Your task to perform on an android device: turn on location history Image 0: 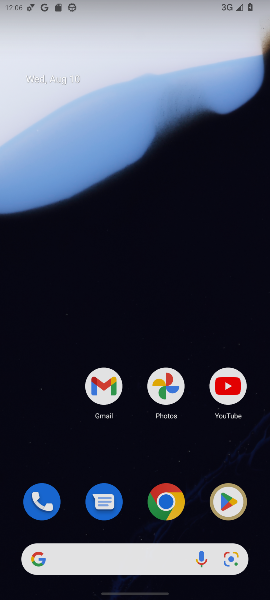
Step 0: press home button
Your task to perform on an android device: turn on location history Image 1: 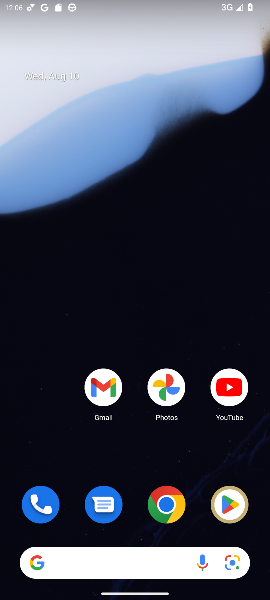
Step 1: drag from (138, 525) to (187, 135)
Your task to perform on an android device: turn on location history Image 2: 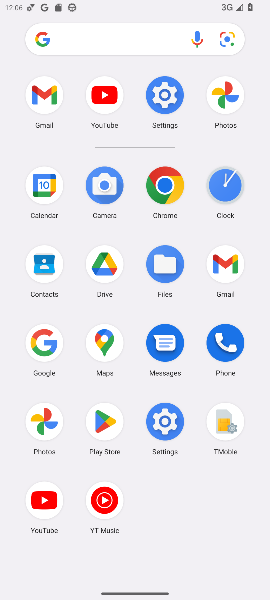
Step 2: click (164, 95)
Your task to perform on an android device: turn on location history Image 3: 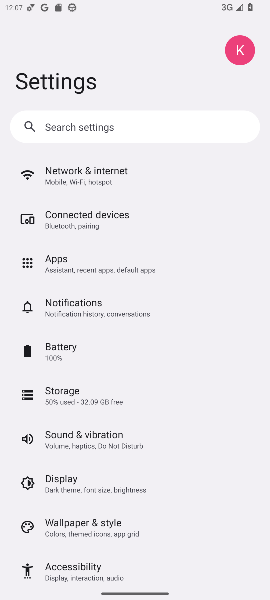
Step 3: drag from (181, 526) to (170, 132)
Your task to perform on an android device: turn on location history Image 4: 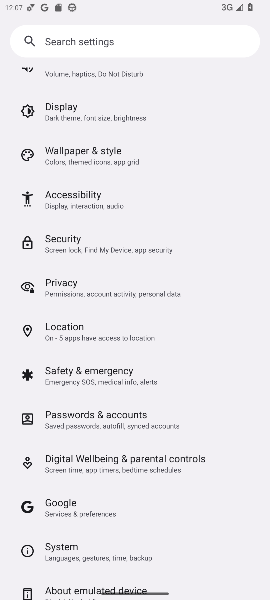
Step 4: click (63, 324)
Your task to perform on an android device: turn on location history Image 5: 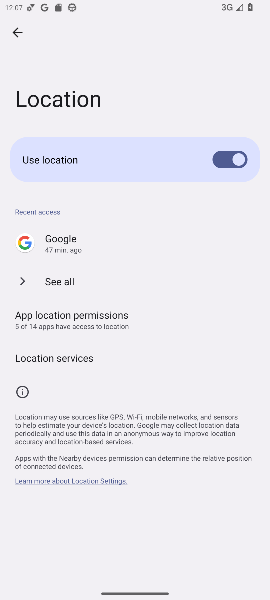
Step 5: click (61, 363)
Your task to perform on an android device: turn on location history Image 6: 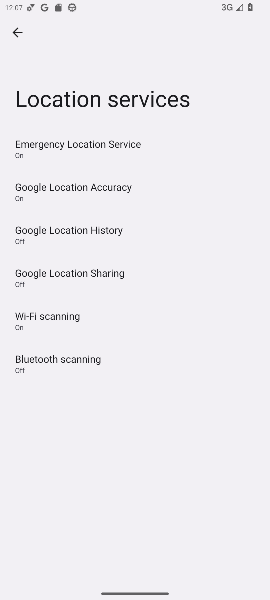
Step 6: click (64, 230)
Your task to perform on an android device: turn on location history Image 7: 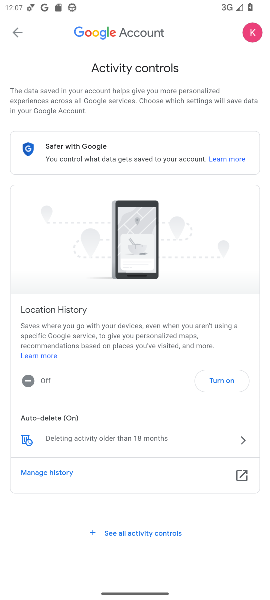
Step 7: click (224, 381)
Your task to perform on an android device: turn on location history Image 8: 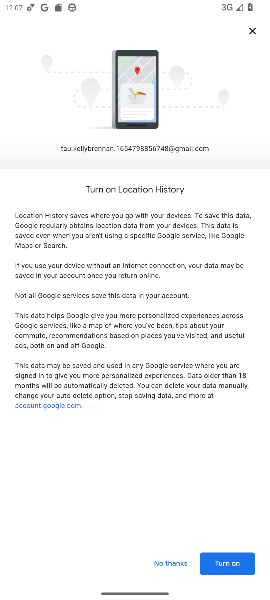
Step 8: click (226, 564)
Your task to perform on an android device: turn on location history Image 9: 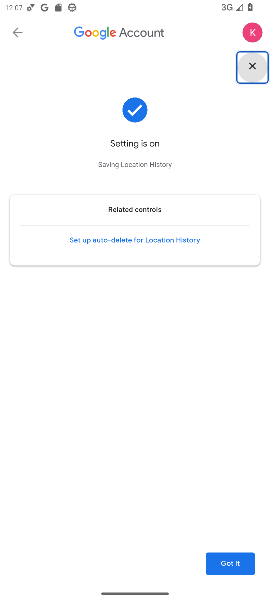
Step 9: click (222, 559)
Your task to perform on an android device: turn on location history Image 10: 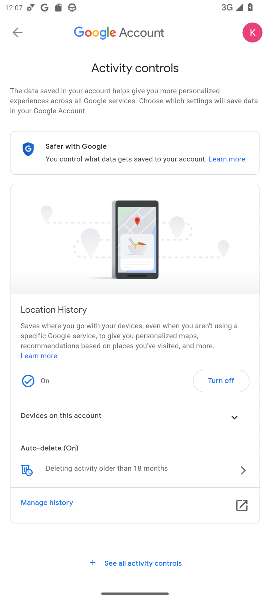
Step 10: task complete